Your task to perform on an android device: change your default location settings in chrome Image 0: 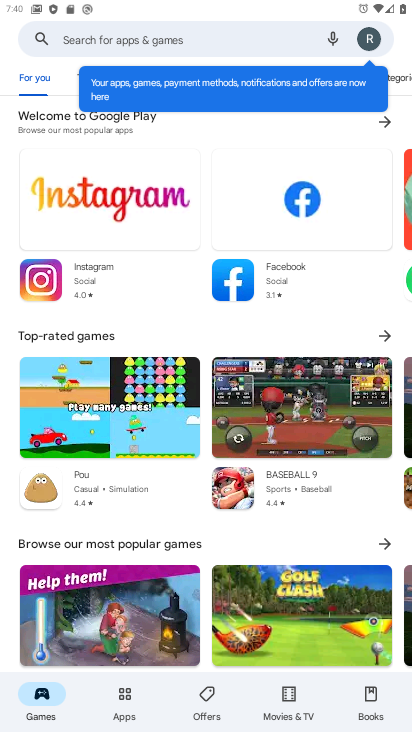
Step 0: press home button
Your task to perform on an android device: change your default location settings in chrome Image 1: 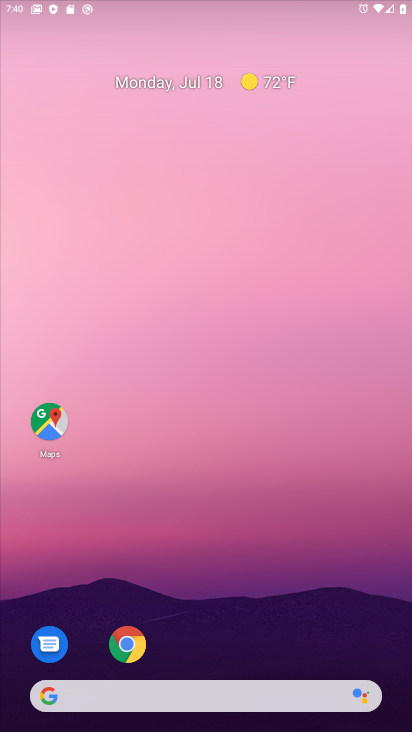
Step 1: drag from (309, 640) to (211, 51)
Your task to perform on an android device: change your default location settings in chrome Image 2: 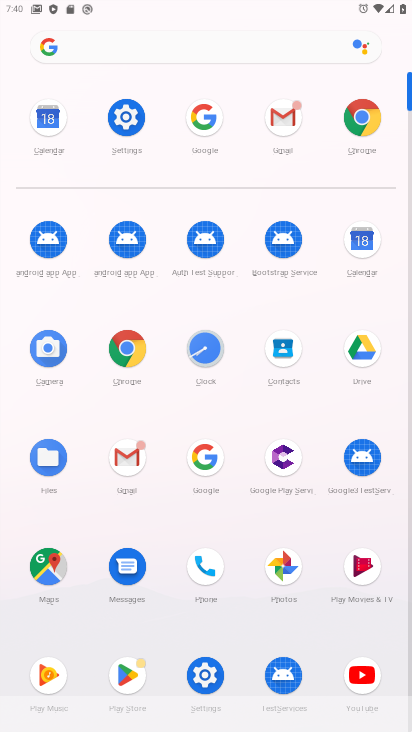
Step 2: click (370, 116)
Your task to perform on an android device: change your default location settings in chrome Image 3: 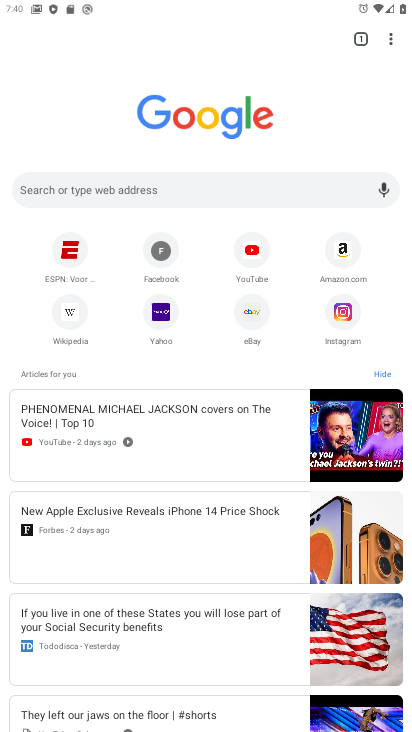
Step 3: click (392, 34)
Your task to perform on an android device: change your default location settings in chrome Image 4: 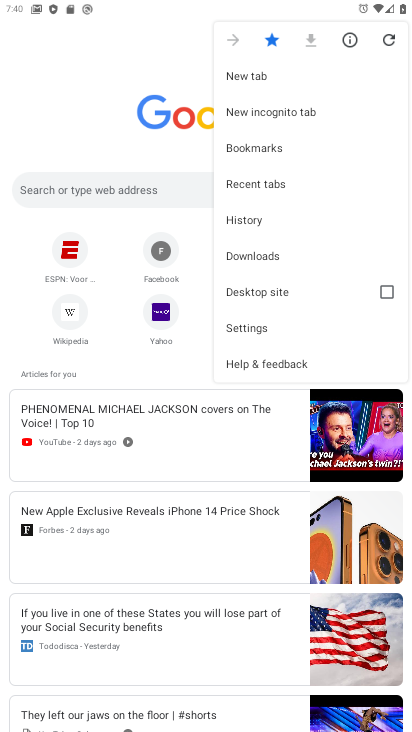
Step 4: click (254, 332)
Your task to perform on an android device: change your default location settings in chrome Image 5: 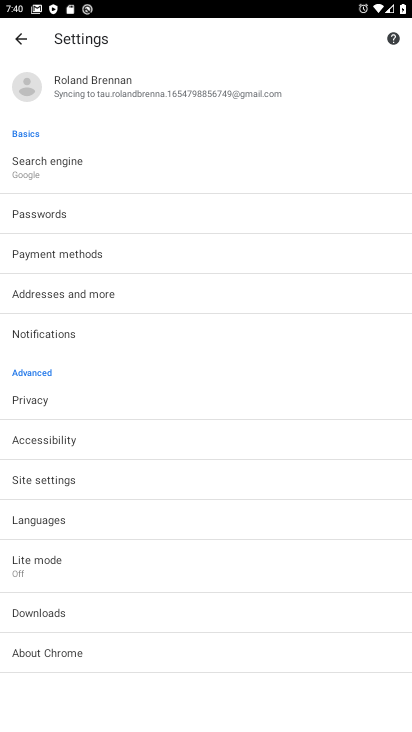
Step 5: click (19, 166)
Your task to perform on an android device: change your default location settings in chrome Image 6: 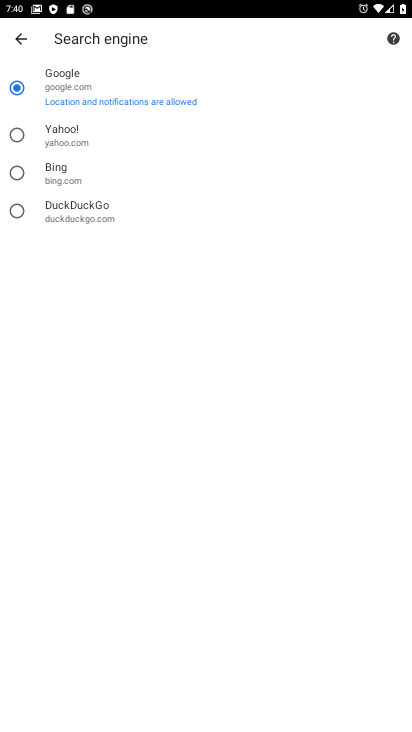
Step 6: click (64, 166)
Your task to perform on an android device: change your default location settings in chrome Image 7: 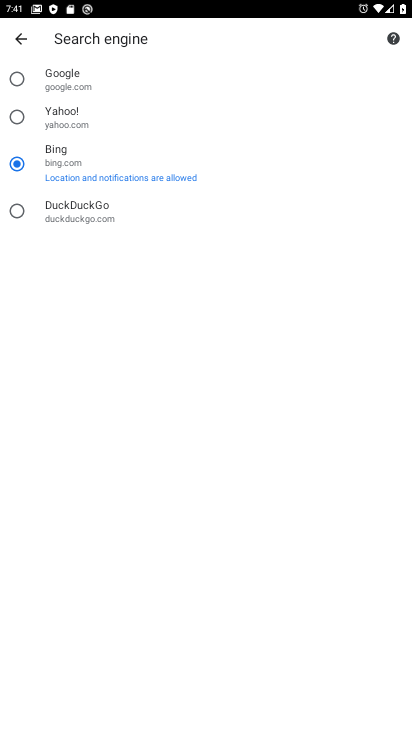
Step 7: task complete